Your task to perform on an android device: Go to Amazon Image 0: 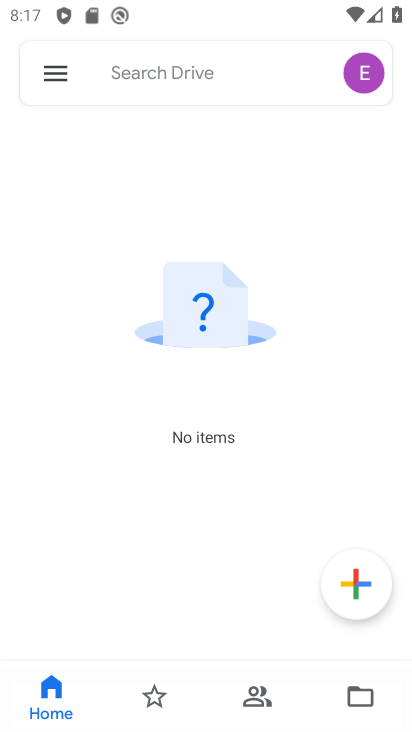
Step 0: press home button
Your task to perform on an android device: Go to Amazon Image 1: 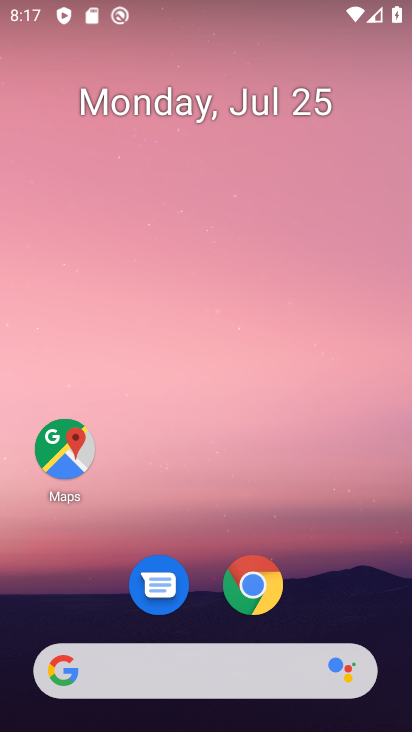
Step 1: click (261, 588)
Your task to perform on an android device: Go to Amazon Image 2: 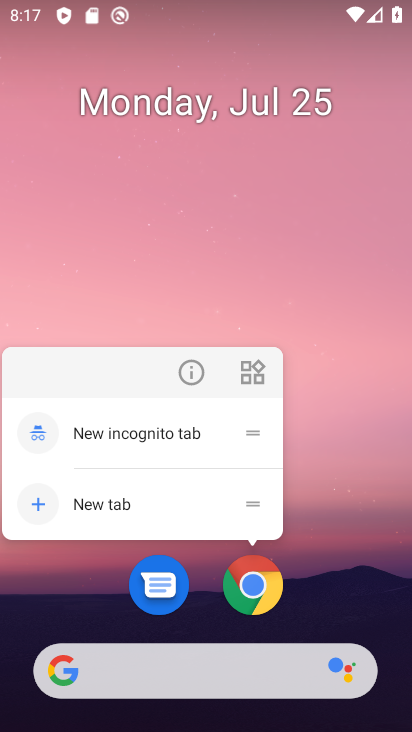
Step 2: click (261, 586)
Your task to perform on an android device: Go to Amazon Image 3: 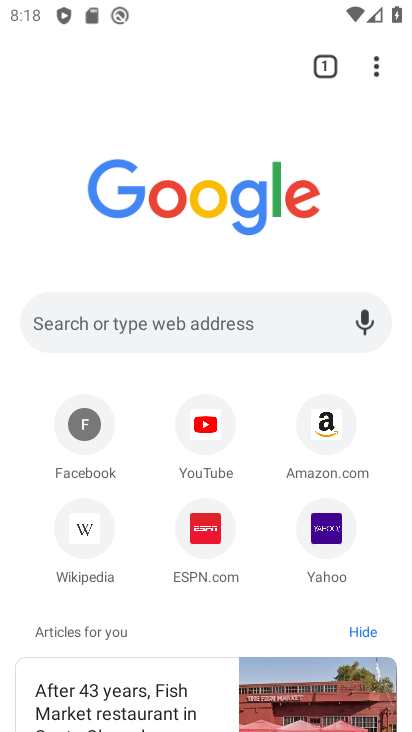
Step 3: click (331, 428)
Your task to perform on an android device: Go to Amazon Image 4: 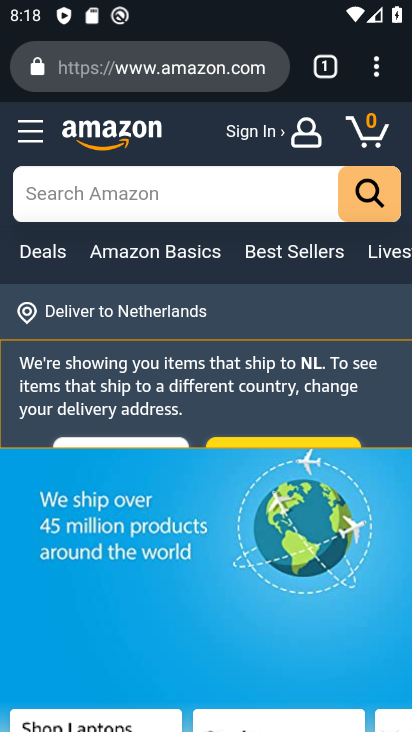
Step 4: task complete